Your task to perform on an android device: turn on priority inbox in the gmail app Image 0: 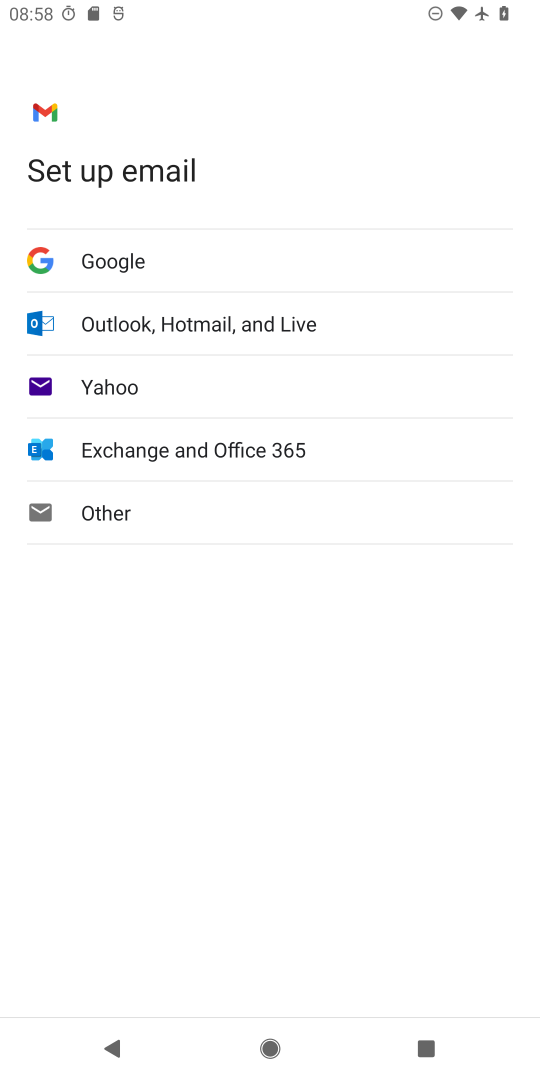
Step 0: press home button
Your task to perform on an android device: turn on priority inbox in the gmail app Image 1: 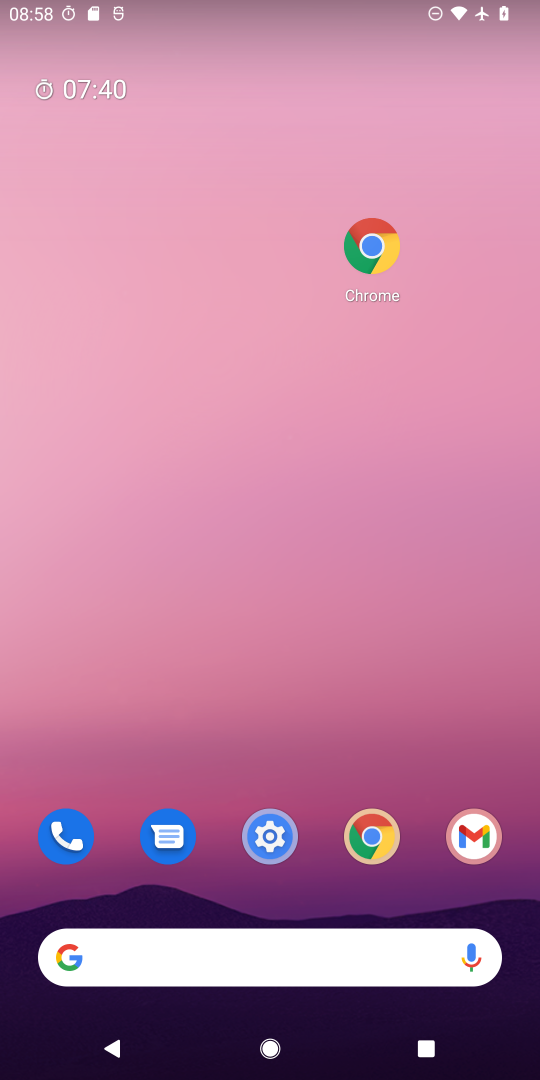
Step 1: drag from (151, 530) to (179, 269)
Your task to perform on an android device: turn on priority inbox in the gmail app Image 2: 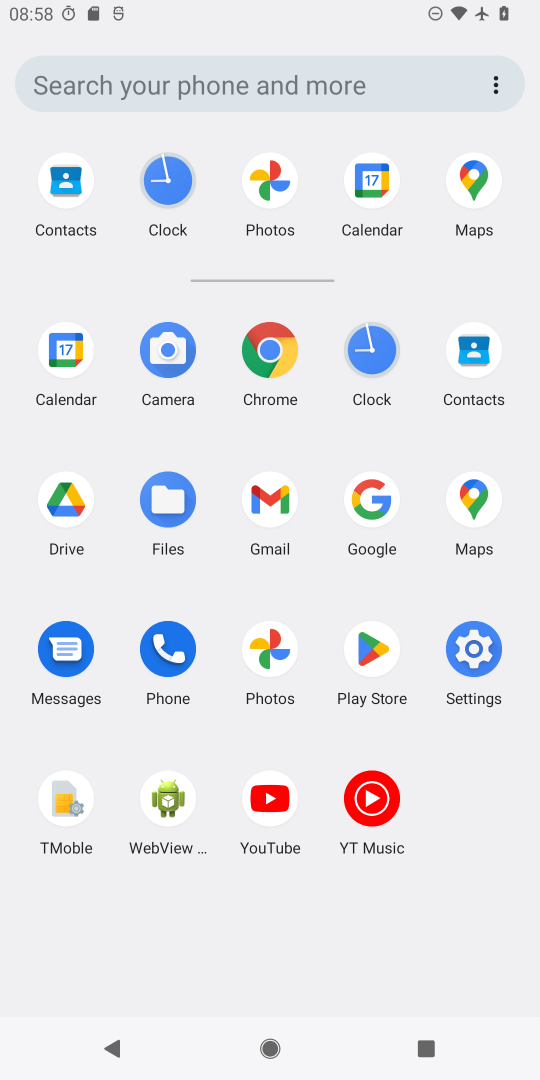
Step 2: click (263, 496)
Your task to perform on an android device: turn on priority inbox in the gmail app Image 3: 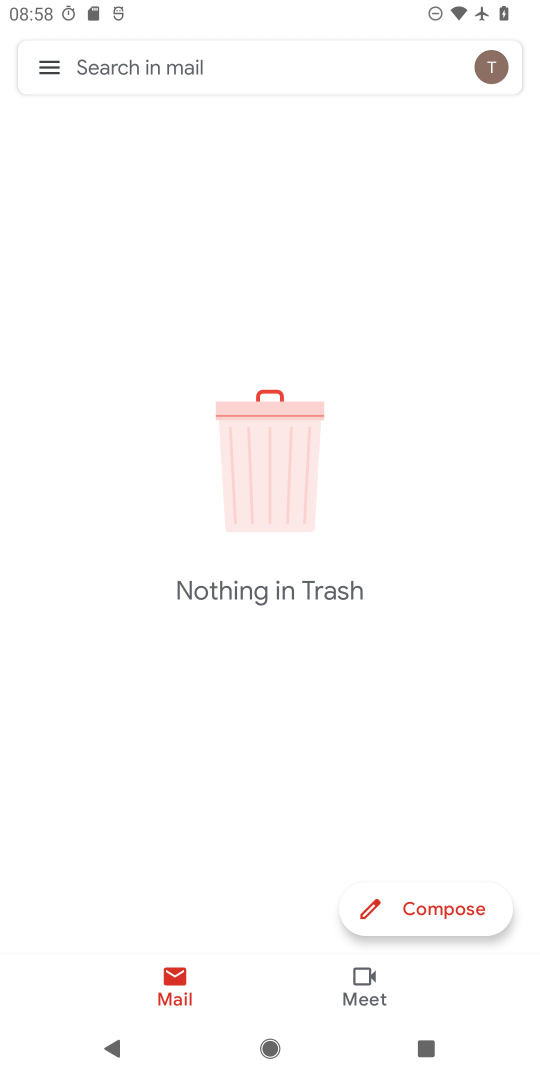
Step 3: click (20, 62)
Your task to perform on an android device: turn on priority inbox in the gmail app Image 4: 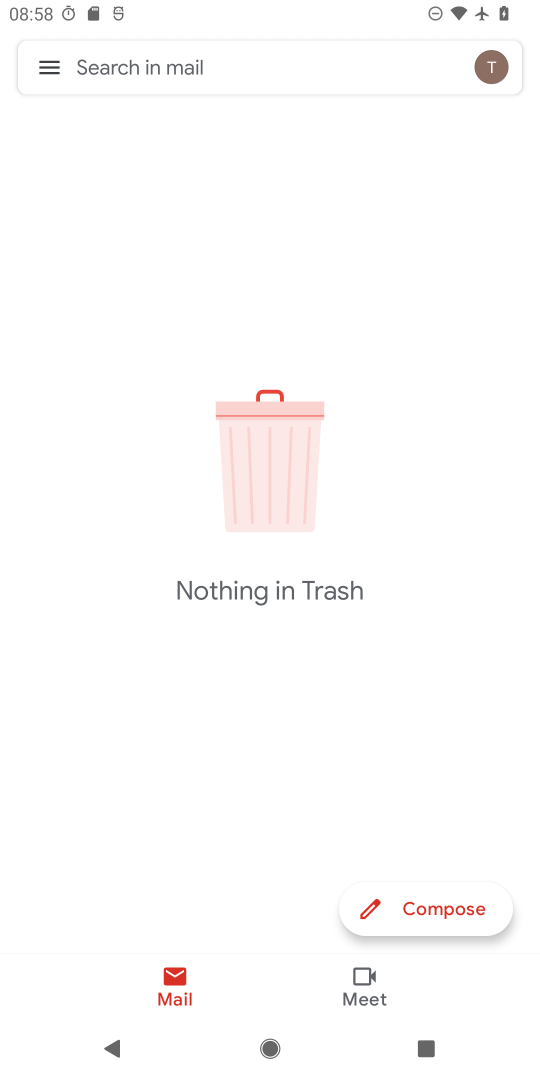
Step 4: click (44, 48)
Your task to perform on an android device: turn on priority inbox in the gmail app Image 5: 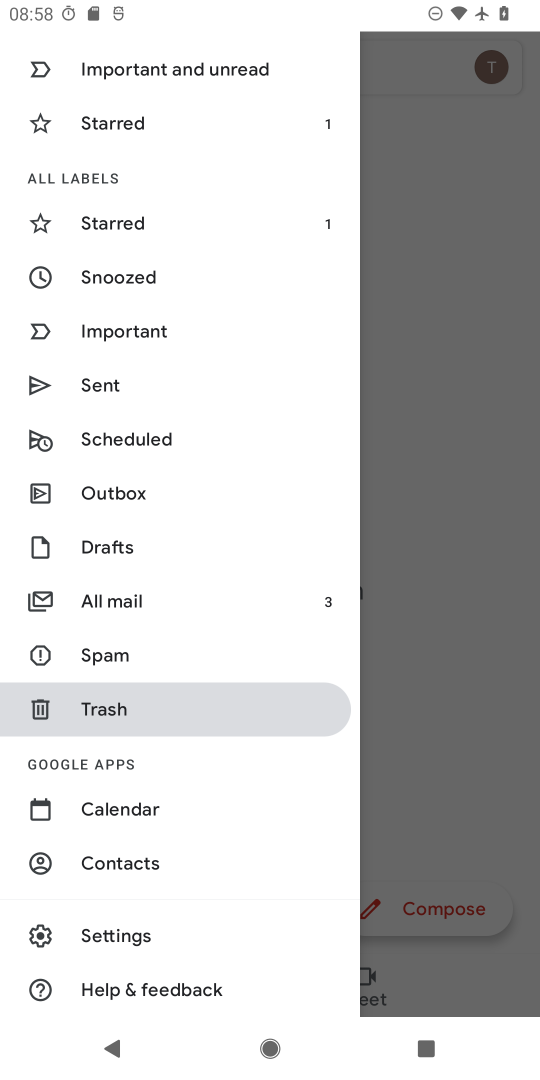
Step 5: click (143, 931)
Your task to perform on an android device: turn on priority inbox in the gmail app Image 6: 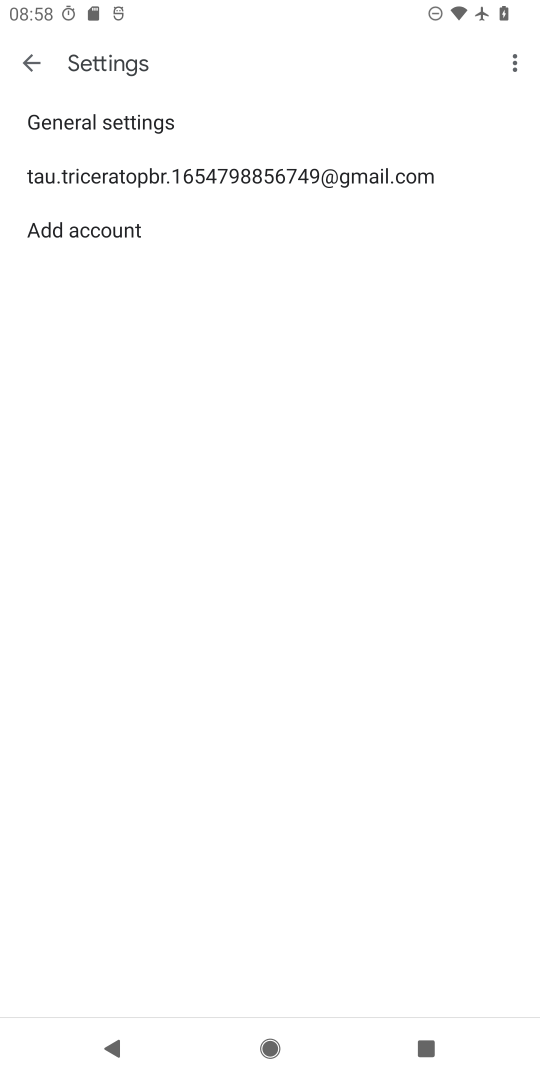
Step 6: click (142, 170)
Your task to perform on an android device: turn on priority inbox in the gmail app Image 7: 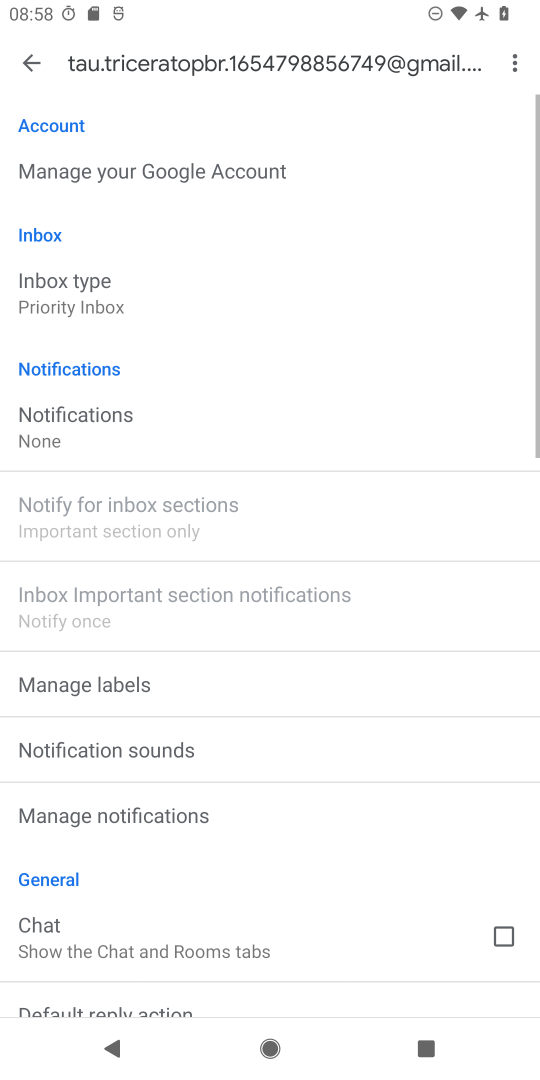
Step 7: click (98, 288)
Your task to perform on an android device: turn on priority inbox in the gmail app Image 8: 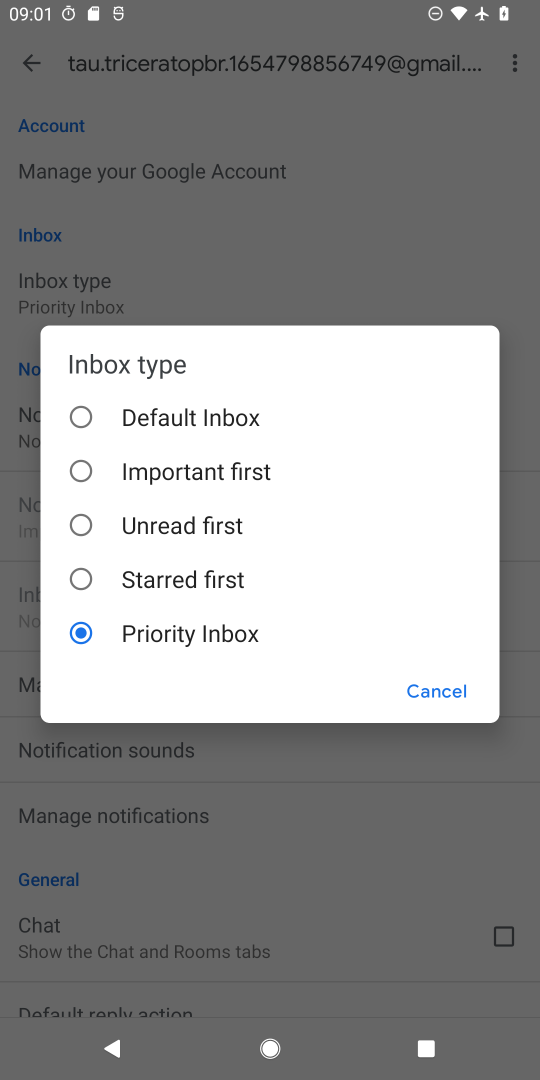
Step 8: task complete